Your task to perform on an android device: turn vacation reply on in the gmail app Image 0: 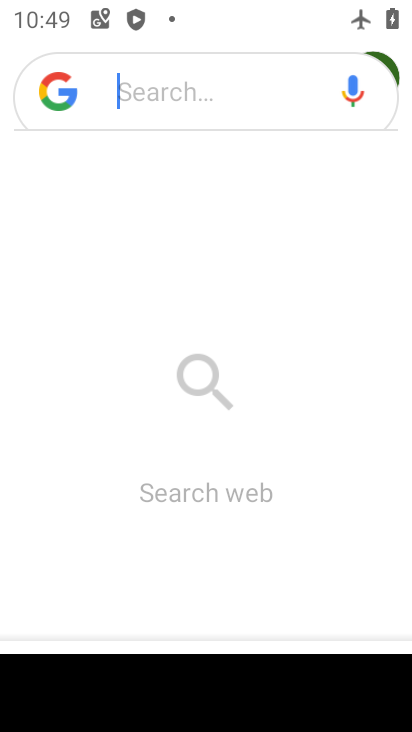
Step 0: press home button
Your task to perform on an android device: turn vacation reply on in the gmail app Image 1: 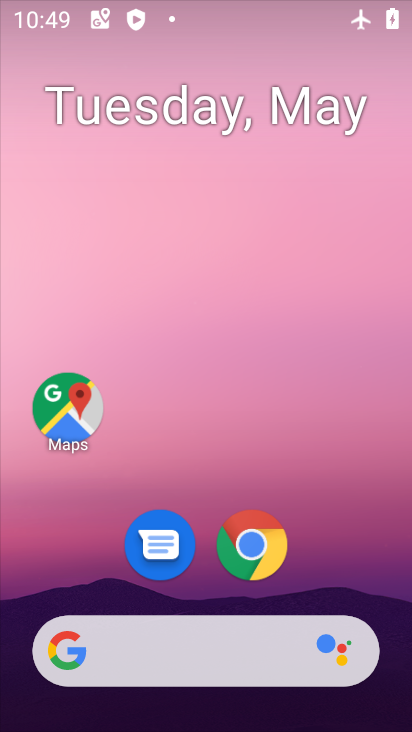
Step 1: drag from (188, 586) to (202, 198)
Your task to perform on an android device: turn vacation reply on in the gmail app Image 2: 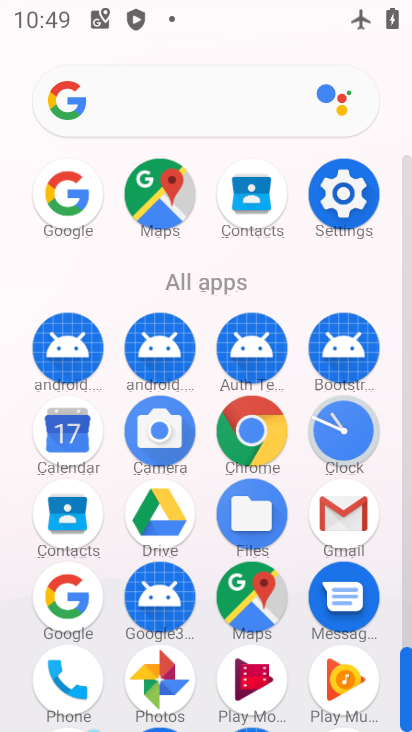
Step 2: click (358, 529)
Your task to perform on an android device: turn vacation reply on in the gmail app Image 3: 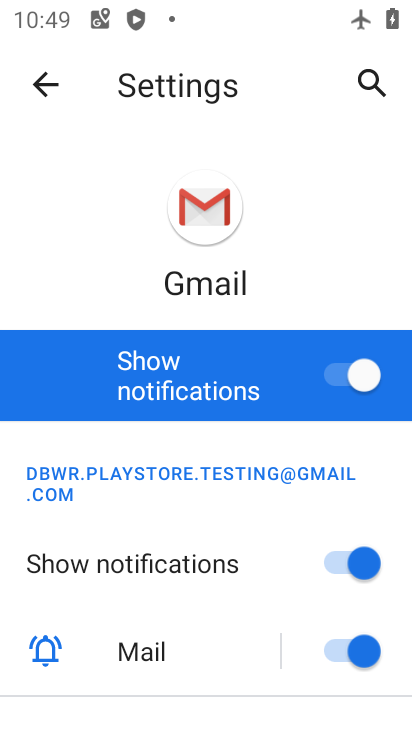
Step 3: click (50, 82)
Your task to perform on an android device: turn vacation reply on in the gmail app Image 4: 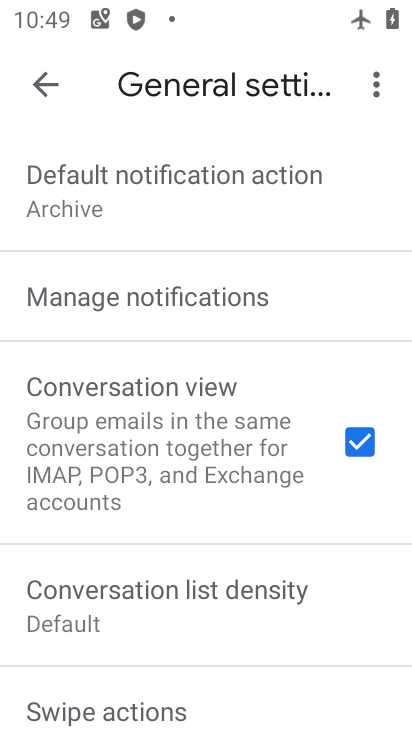
Step 4: click (109, 299)
Your task to perform on an android device: turn vacation reply on in the gmail app Image 5: 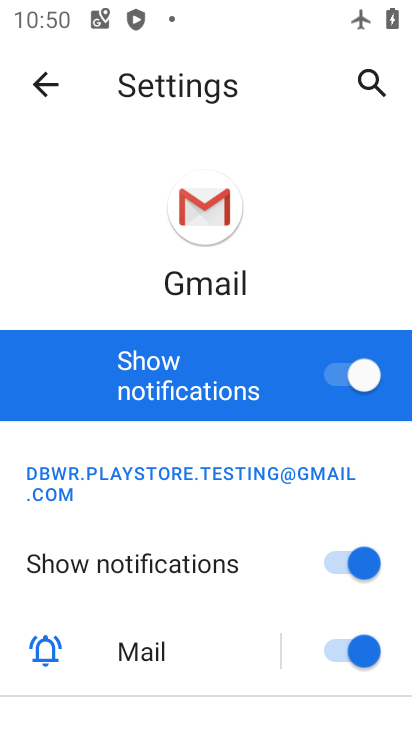
Step 5: drag from (154, 522) to (132, 306)
Your task to perform on an android device: turn vacation reply on in the gmail app Image 6: 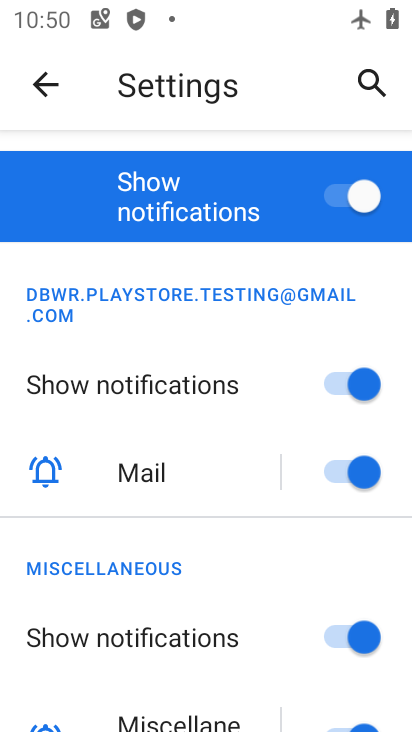
Step 6: click (55, 90)
Your task to perform on an android device: turn vacation reply on in the gmail app Image 7: 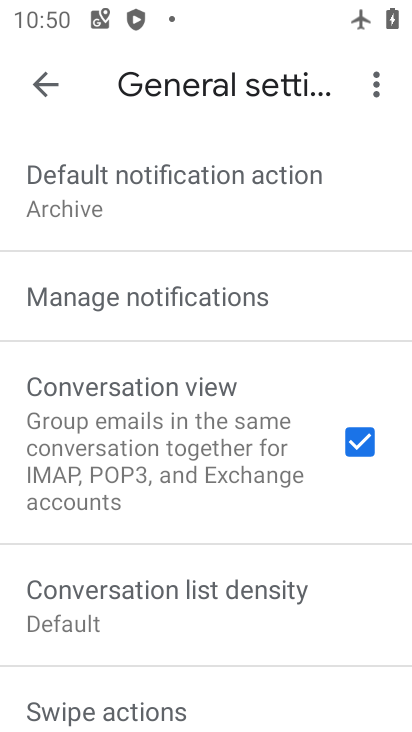
Step 7: click (57, 90)
Your task to perform on an android device: turn vacation reply on in the gmail app Image 8: 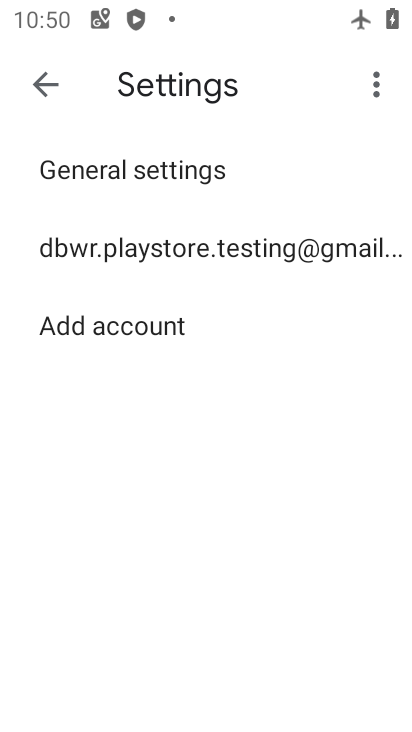
Step 8: click (116, 260)
Your task to perform on an android device: turn vacation reply on in the gmail app Image 9: 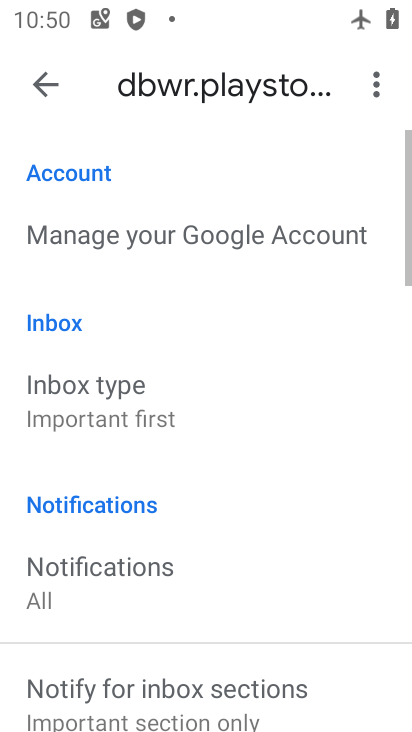
Step 9: drag from (44, 324) to (34, 264)
Your task to perform on an android device: turn vacation reply on in the gmail app Image 10: 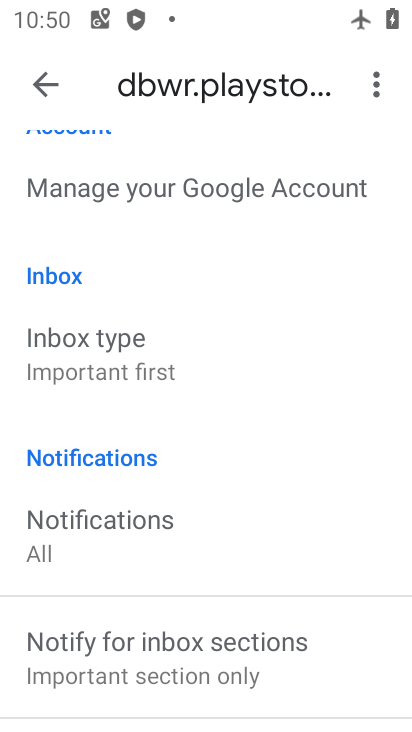
Step 10: drag from (167, 547) to (143, 170)
Your task to perform on an android device: turn vacation reply on in the gmail app Image 11: 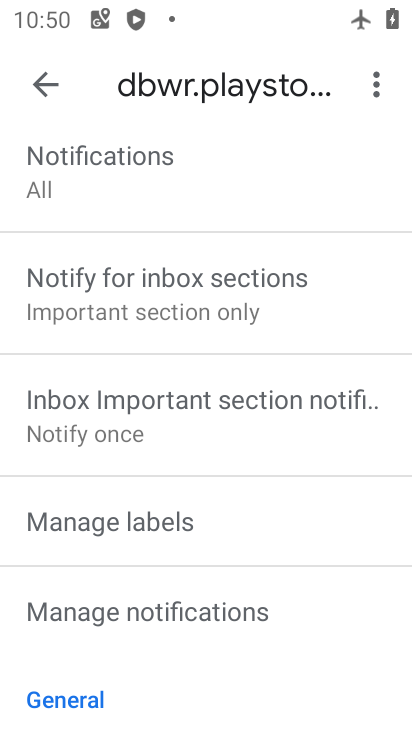
Step 11: drag from (129, 600) to (146, 238)
Your task to perform on an android device: turn vacation reply on in the gmail app Image 12: 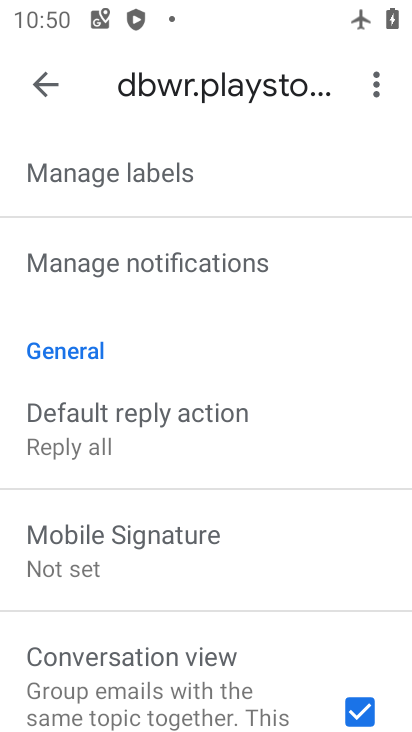
Step 12: drag from (132, 625) to (152, 309)
Your task to perform on an android device: turn vacation reply on in the gmail app Image 13: 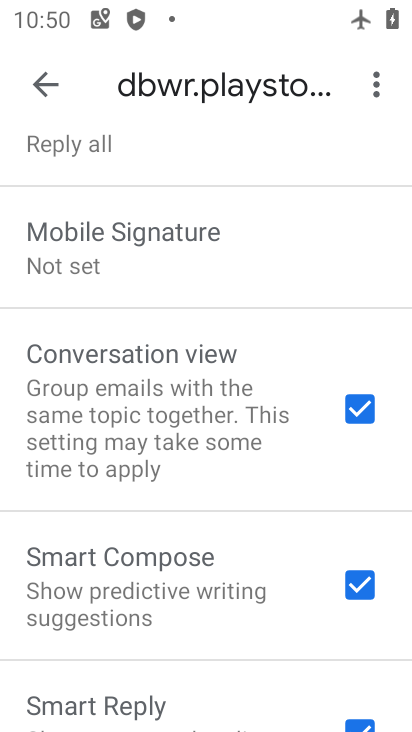
Step 13: drag from (146, 612) to (179, 300)
Your task to perform on an android device: turn vacation reply on in the gmail app Image 14: 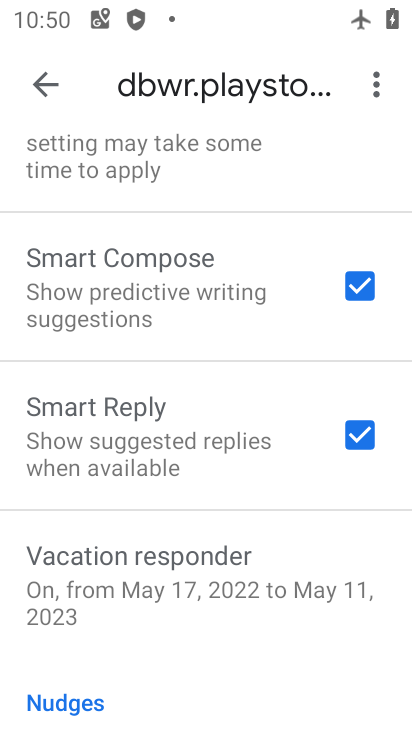
Step 14: click (154, 569)
Your task to perform on an android device: turn vacation reply on in the gmail app Image 15: 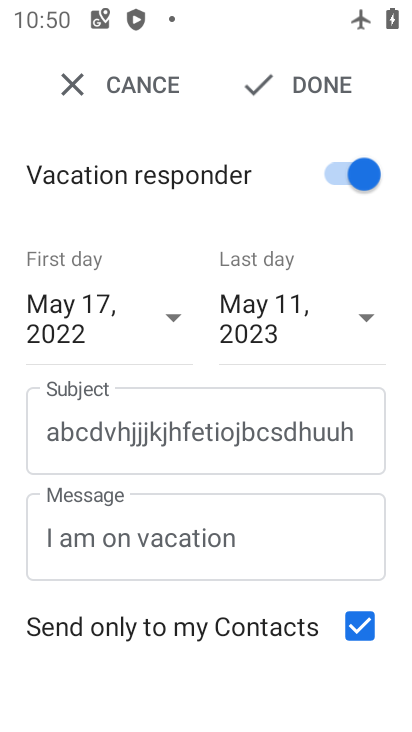
Step 15: task complete